Your task to perform on an android device: empty trash in google photos Image 0: 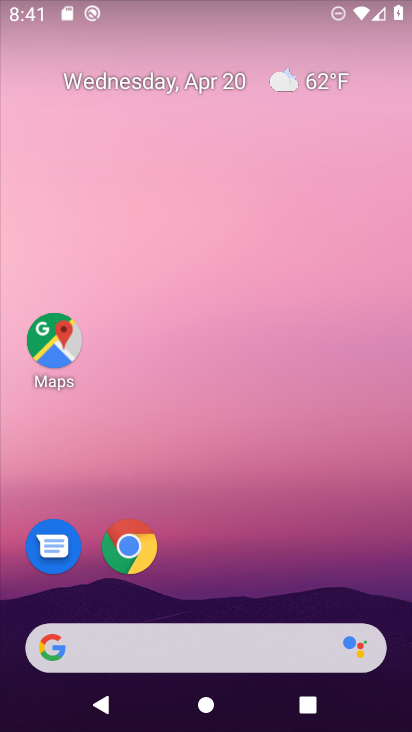
Step 0: drag from (251, 566) to (256, 124)
Your task to perform on an android device: empty trash in google photos Image 1: 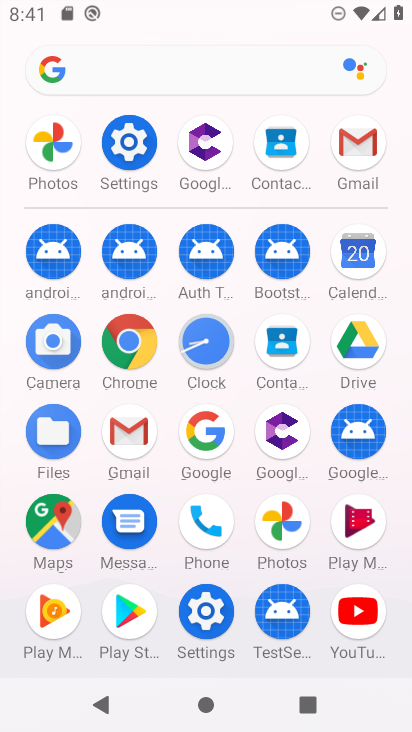
Step 1: click (54, 147)
Your task to perform on an android device: empty trash in google photos Image 2: 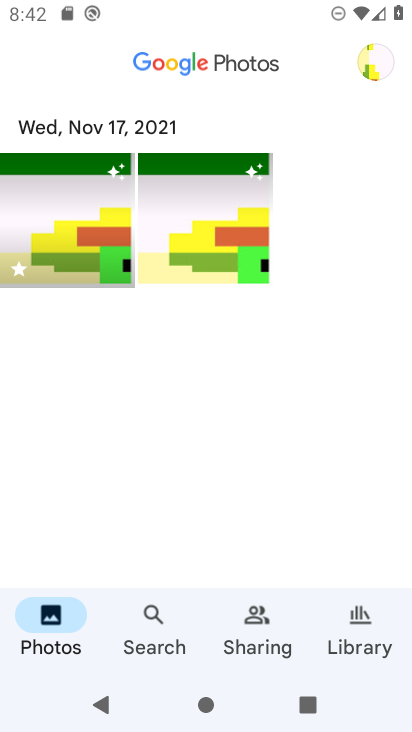
Step 2: click (367, 59)
Your task to perform on an android device: empty trash in google photos Image 3: 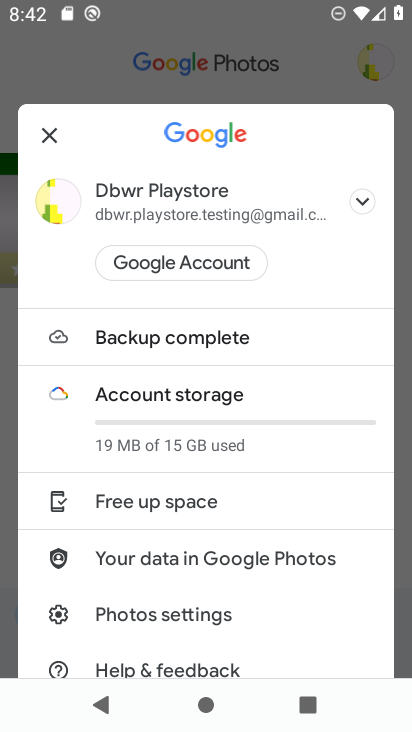
Step 3: click (196, 495)
Your task to perform on an android device: empty trash in google photos Image 4: 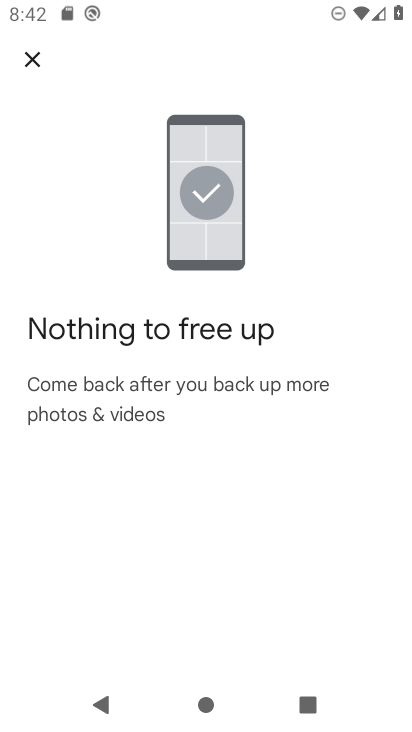
Step 4: task complete